Your task to perform on an android device: change alarm snooze length Image 0: 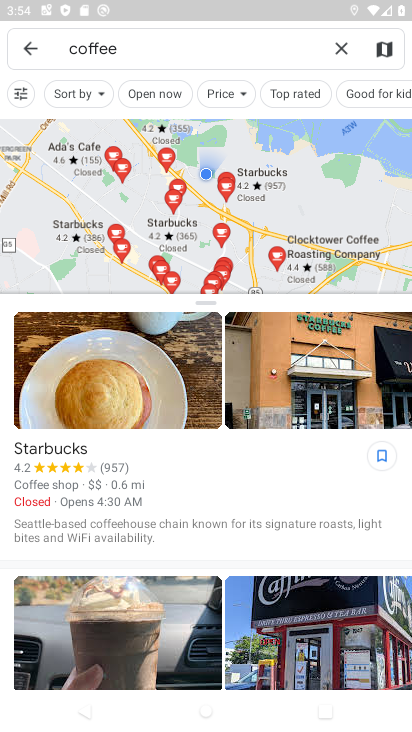
Step 0: press home button
Your task to perform on an android device: change alarm snooze length Image 1: 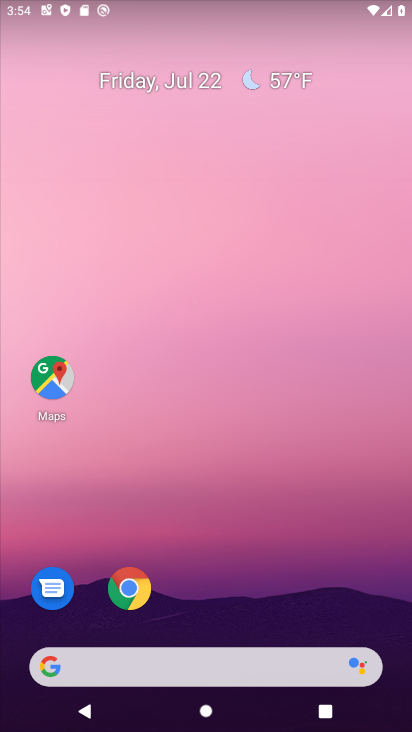
Step 1: drag from (199, 626) to (133, 17)
Your task to perform on an android device: change alarm snooze length Image 2: 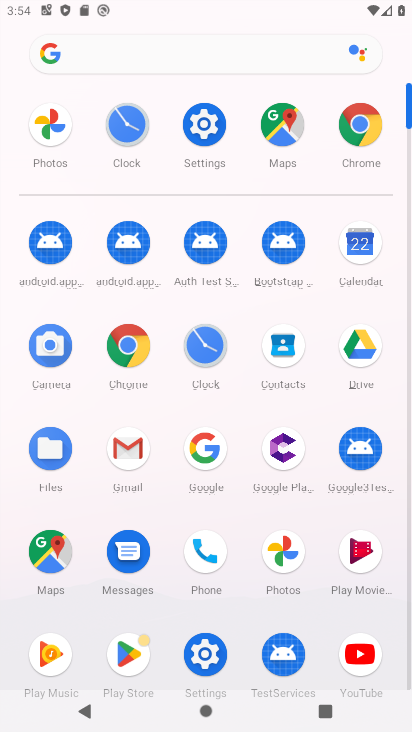
Step 2: click (191, 381)
Your task to perform on an android device: change alarm snooze length Image 3: 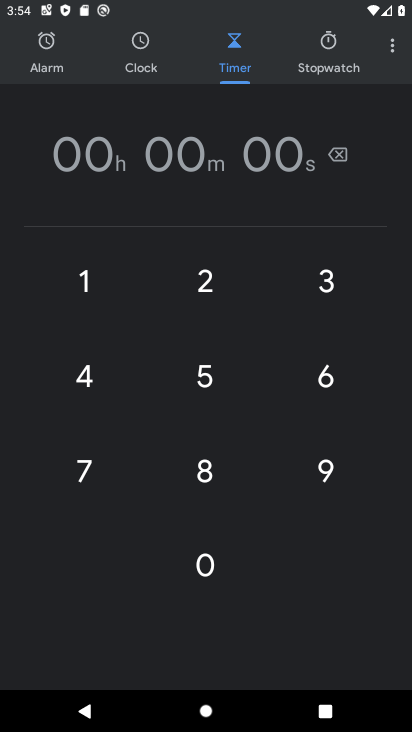
Step 3: click (382, 50)
Your task to perform on an android device: change alarm snooze length Image 4: 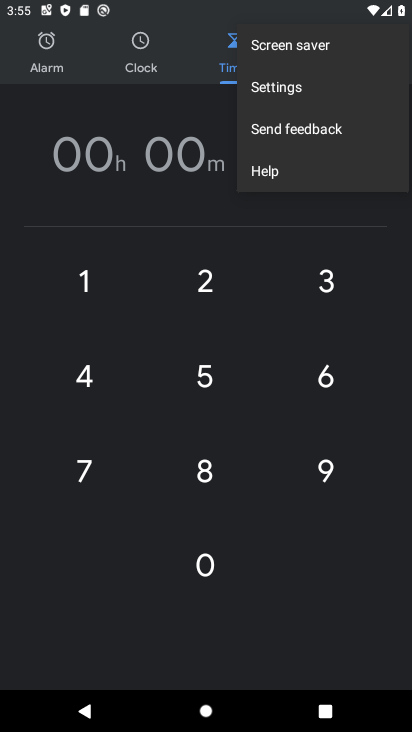
Step 4: click (270, 94)
Your task to perform on an android device: change alarm snooze length Image 5: 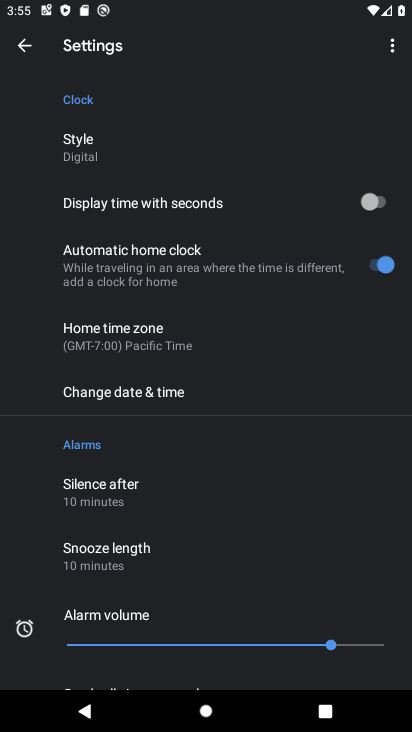
Step 5: click (129, 545)
Your task to perform on an android device: change alarm snooze length Image 6: 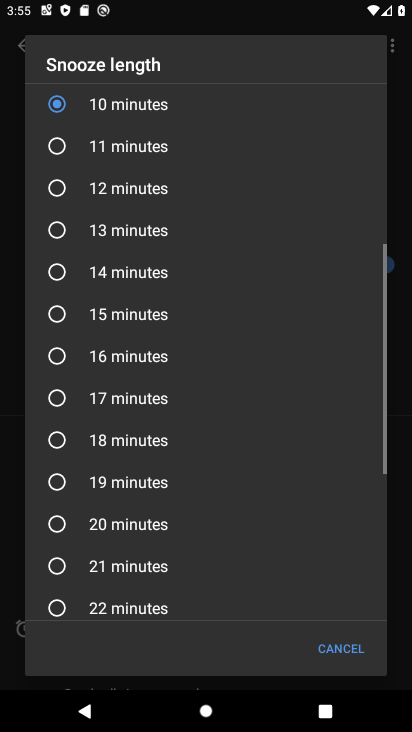
Step 6: click (73, 151)
Your task to perform on an android device: change alarm snooze length Image 7: 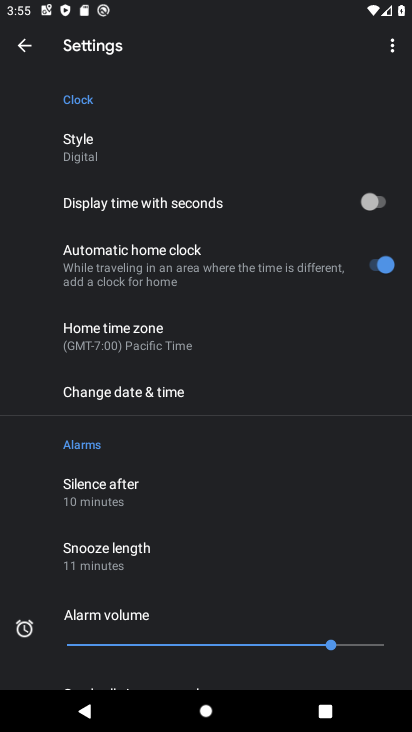
Step 7: task complete